Your task to perform on an android device: make emails show in primary in the gmail app Image 0: 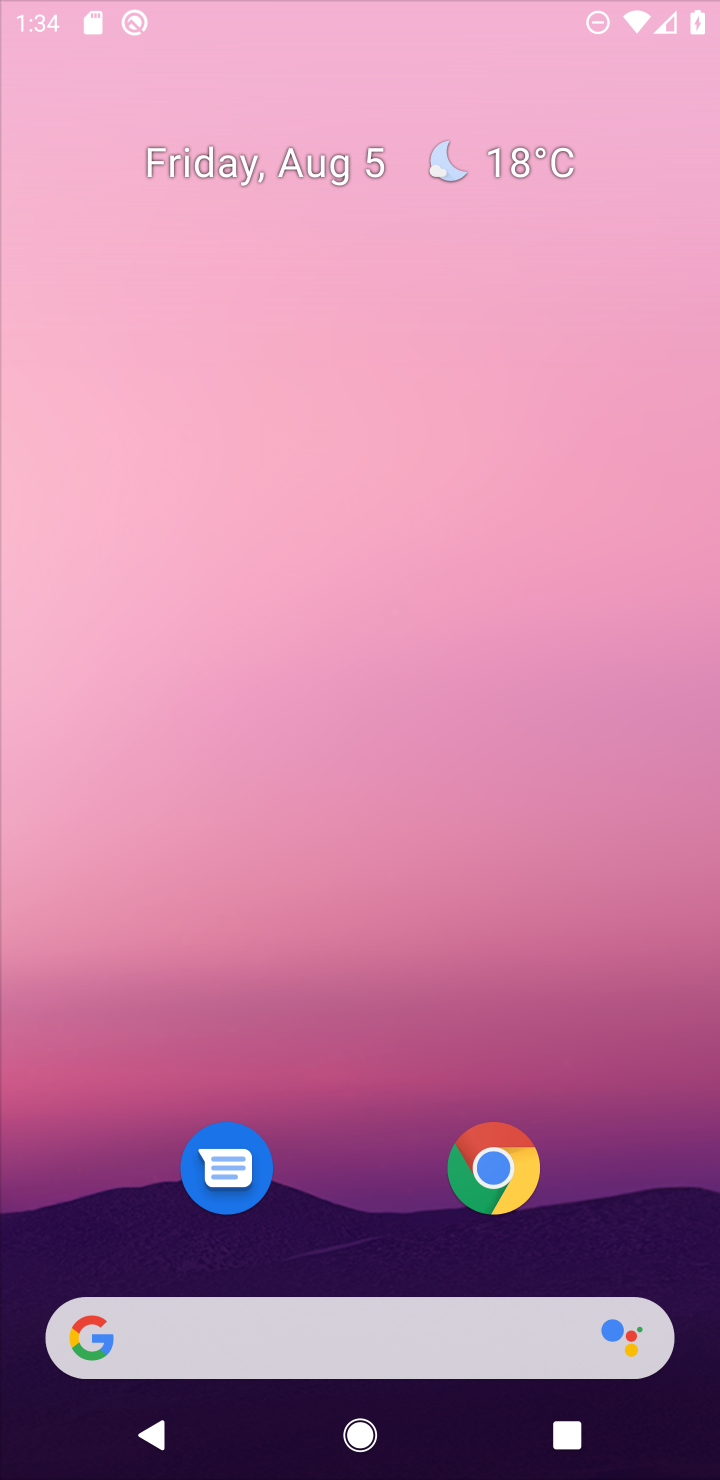
Step 0: press back button
Your task to perform on an android device: make emails show in primary in the gmail app Image 1: 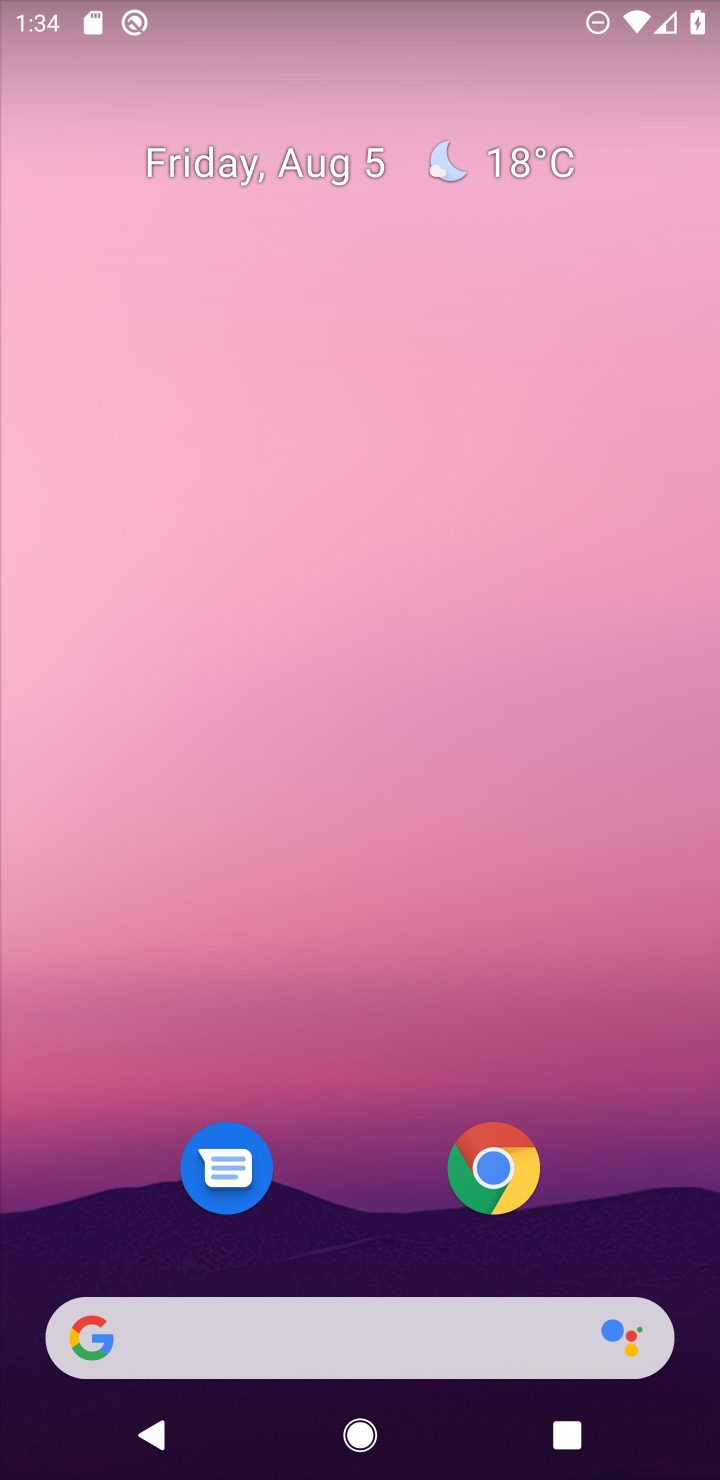
Step 1: drag from (365, 1227) to (475, 212)
Your task to perform on an android device: make emails show in primary in the gmail app Image 2: 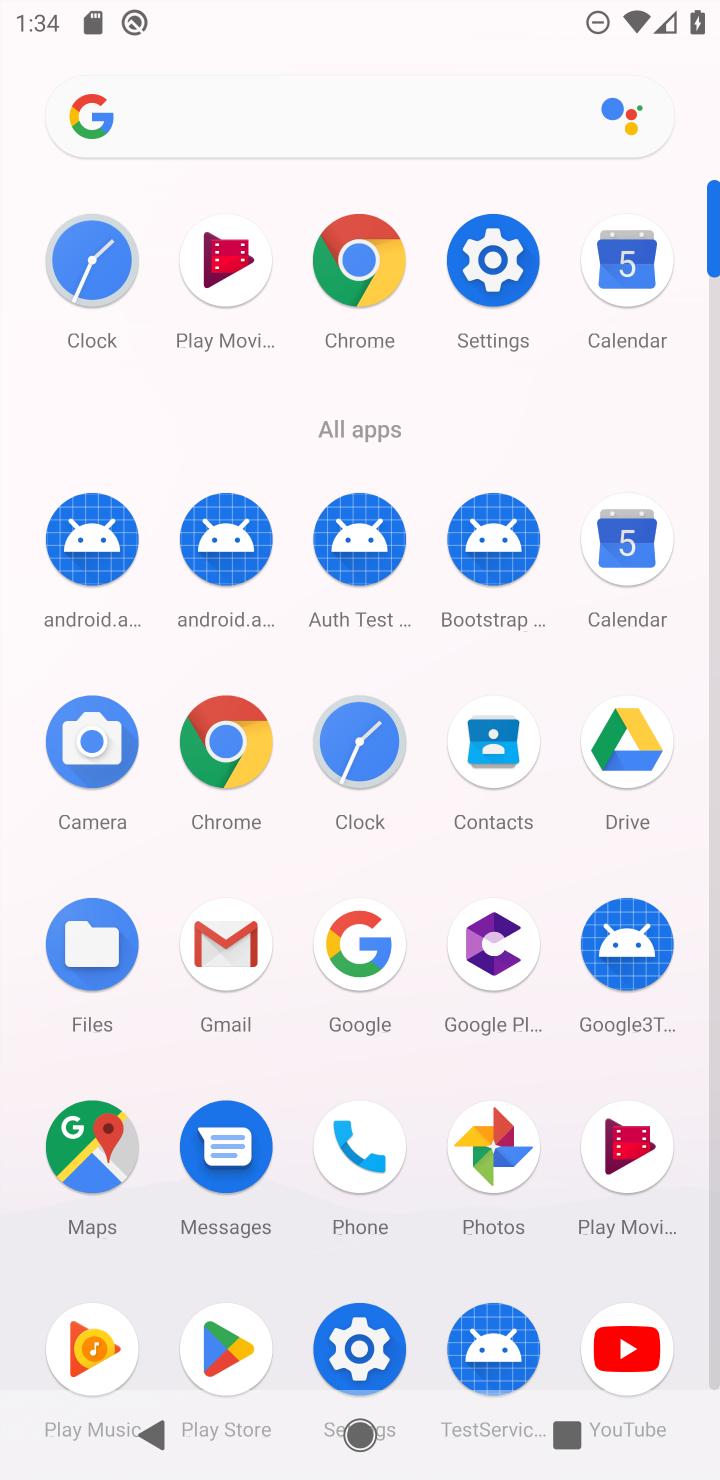
Step 2: click (254, 927)
Your task to perform on an android device: make emails show in primary in the gmail app Image 3: 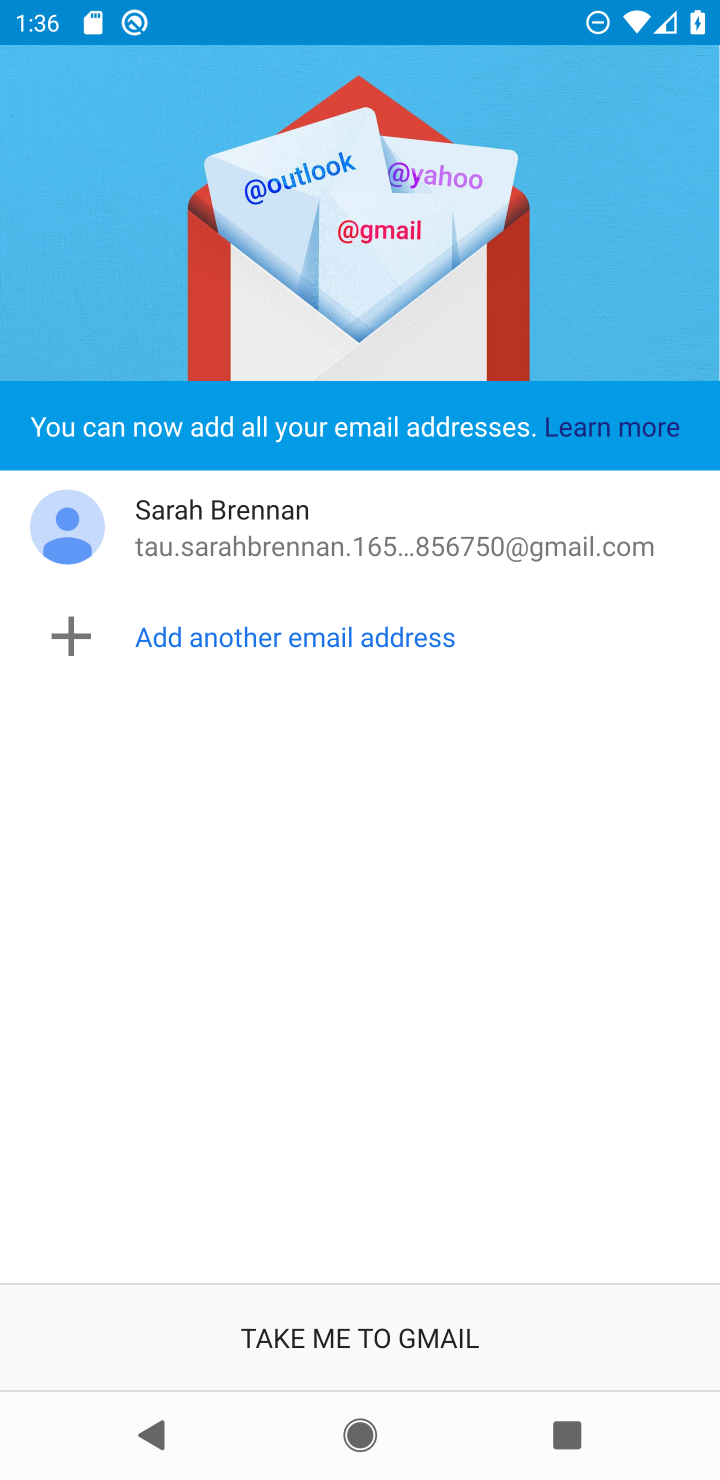
Step 3: click (315, 1319)
Your task to perform on an android device: make emails show in primary in the gmail app Image 4: 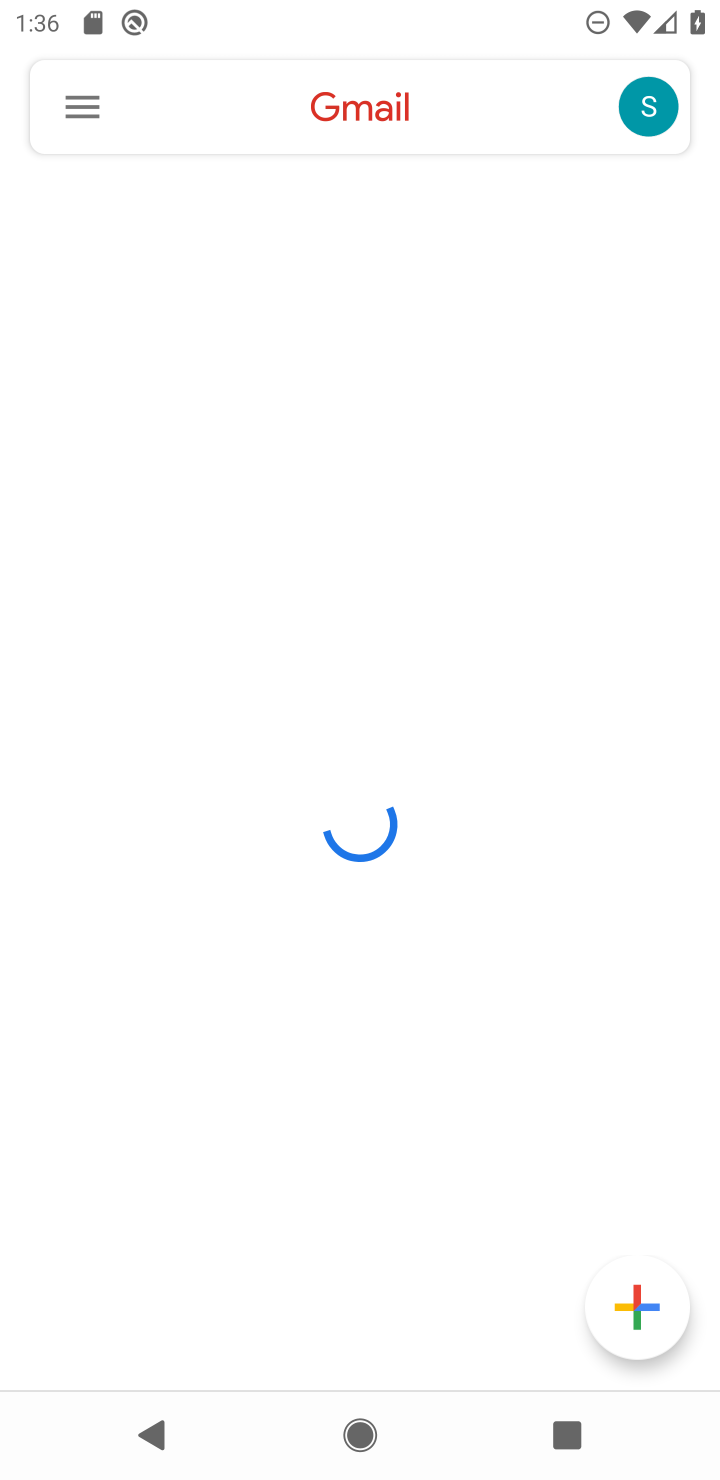
Step 4: click (90, 93)
Your task to perform on an android device: make emails show in primary in the gmail app Image 5: 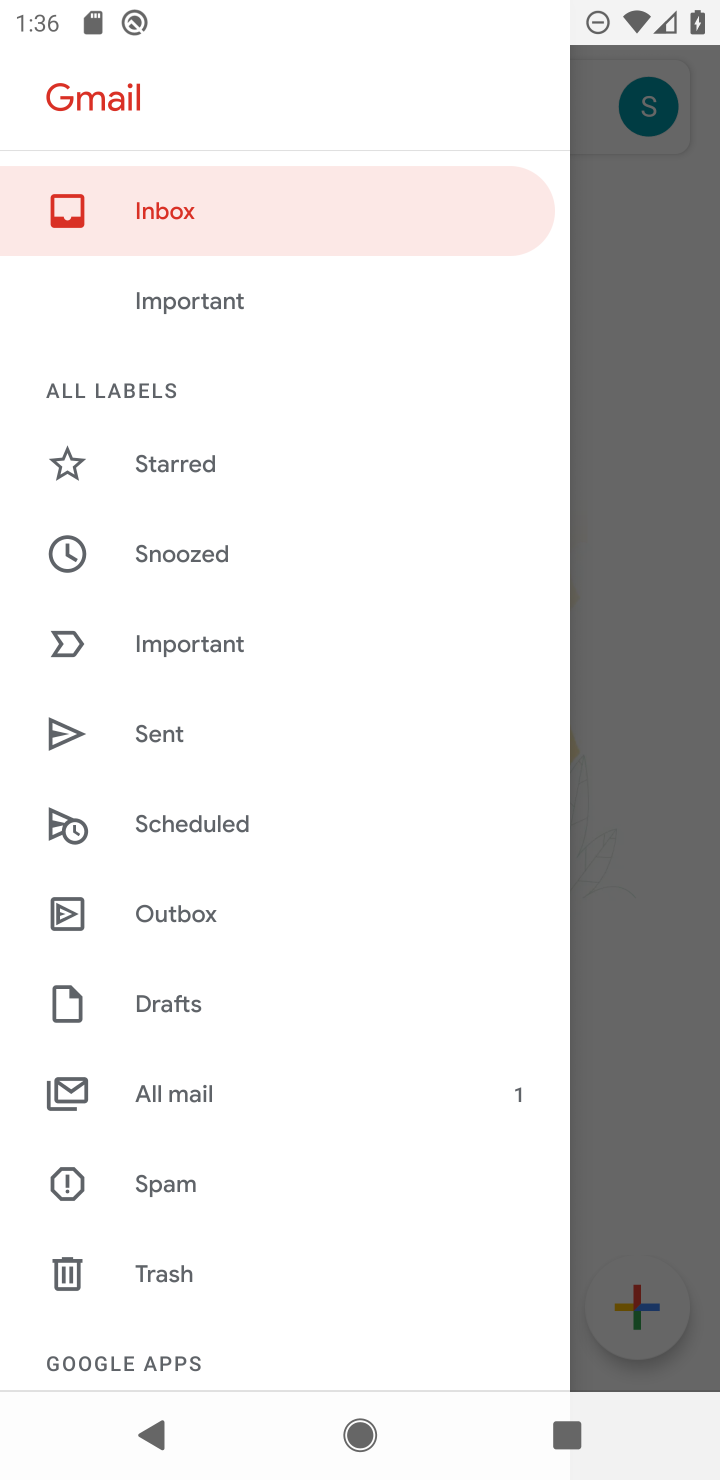
Step 5: drag from (287, 1128) to (480, 170)
Your task to perform on an android device: make emails show in primary in the gmail app Image 6: 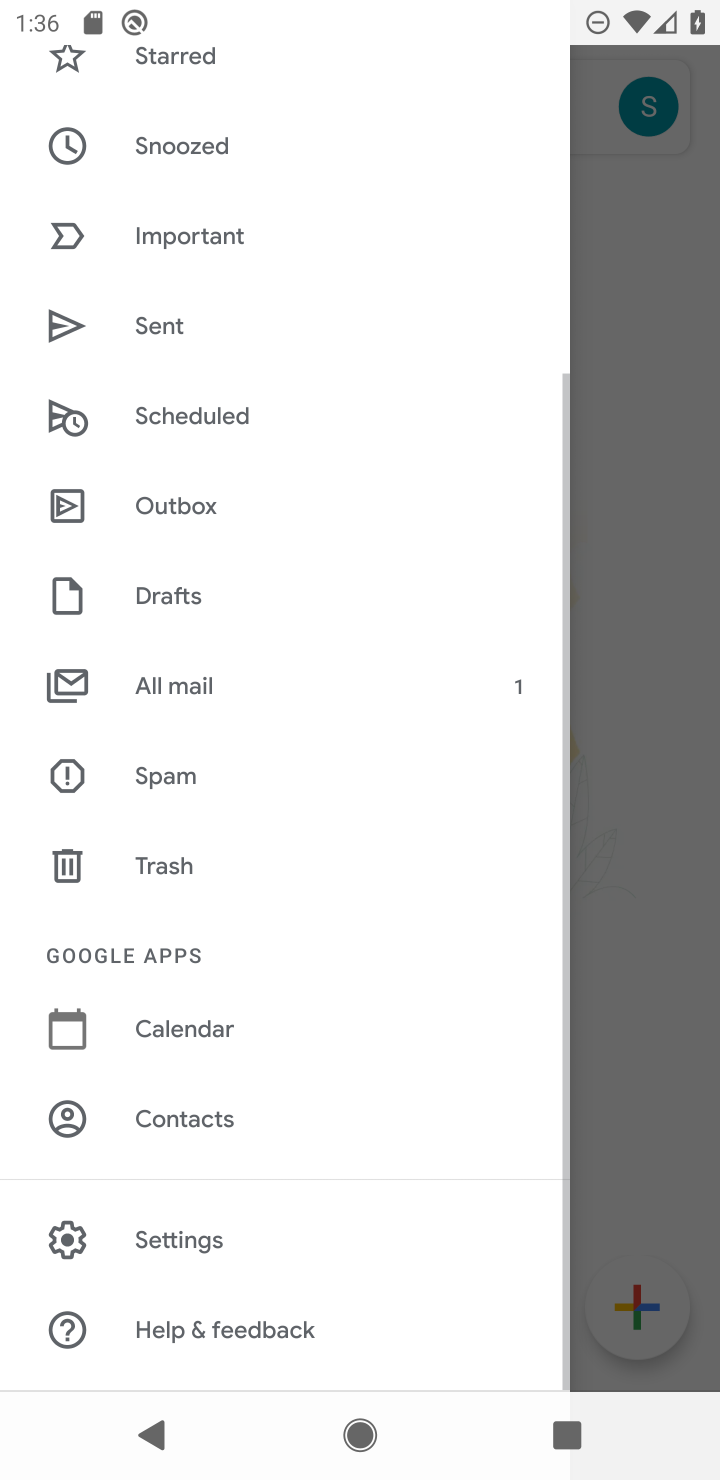
Step 6: click (195, 1247)
Your task to perform on an android device: make emails show in primary in the gmail app Image 7: 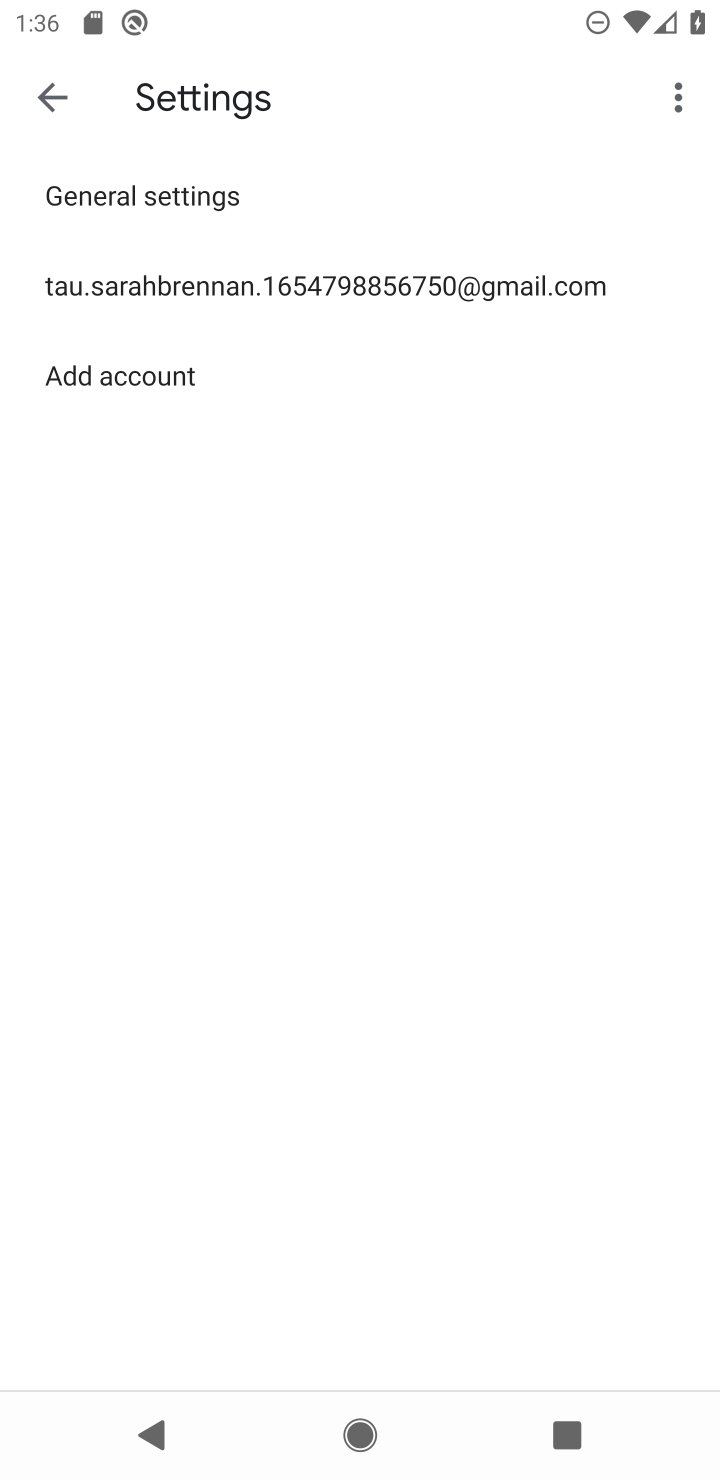
Step 7: click (263, 297)
Your task to perform on an android device: make emails show in primary in the gmail app Image 8: 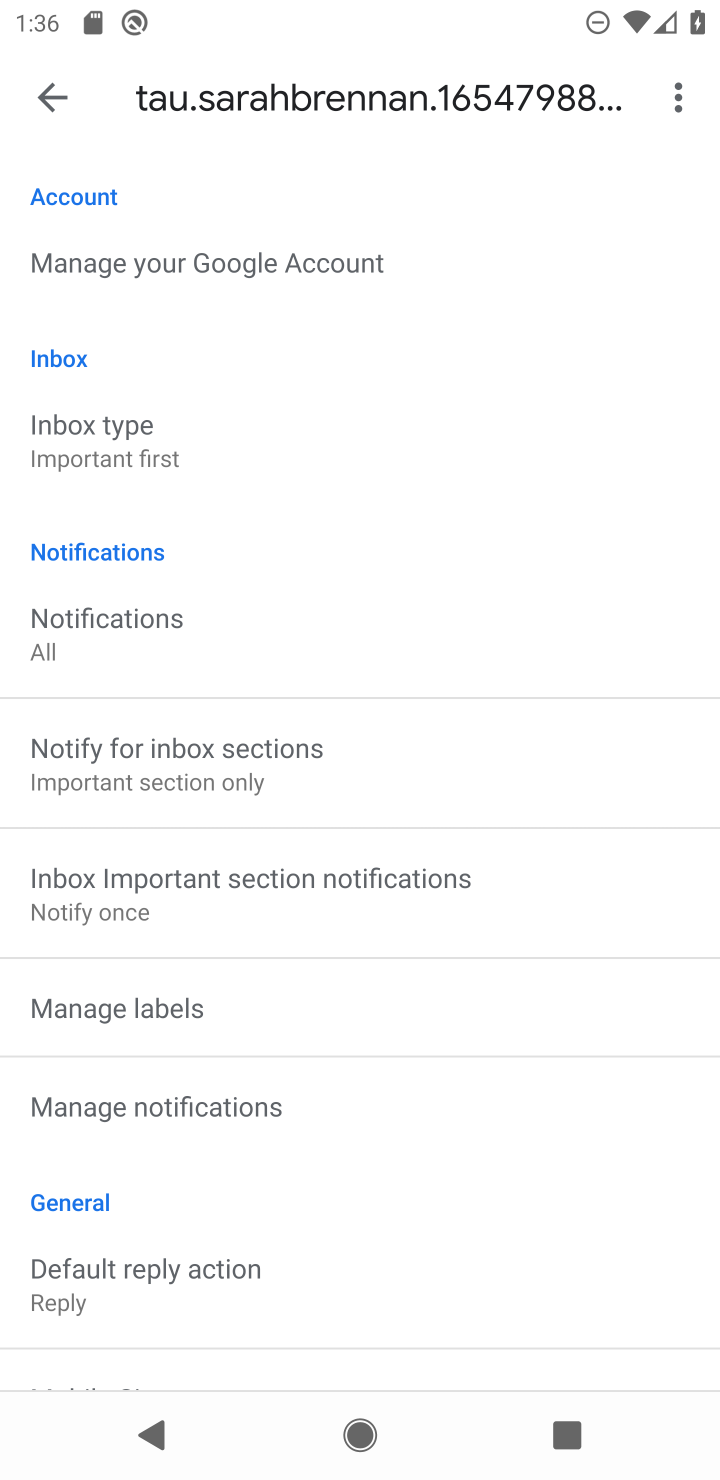
Step 8: task complete